Your task to perform on an android device: Search for flights from Sydney to Helsinki Image 0: 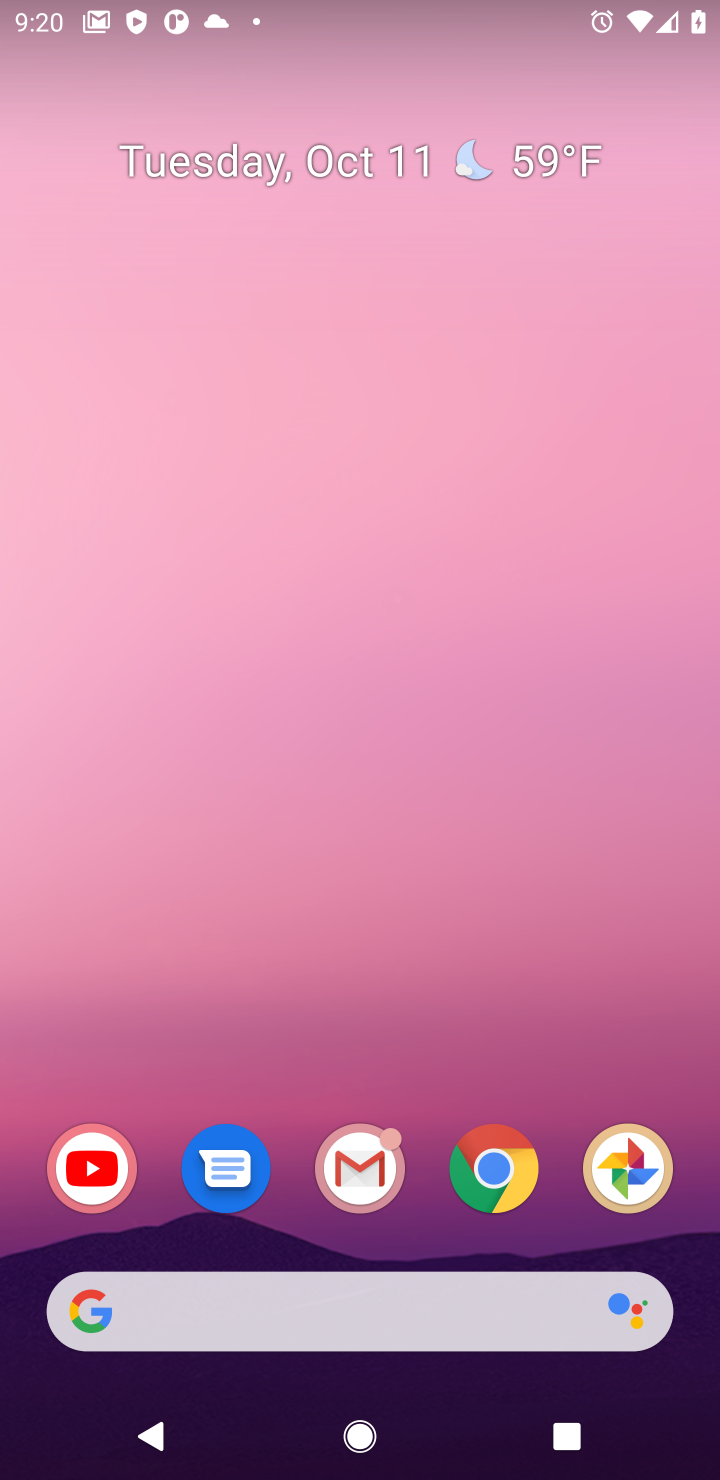
Step 0: press home button
Your task to perform on an android device: Search for flights from Sydney to Helsinki Image 1: 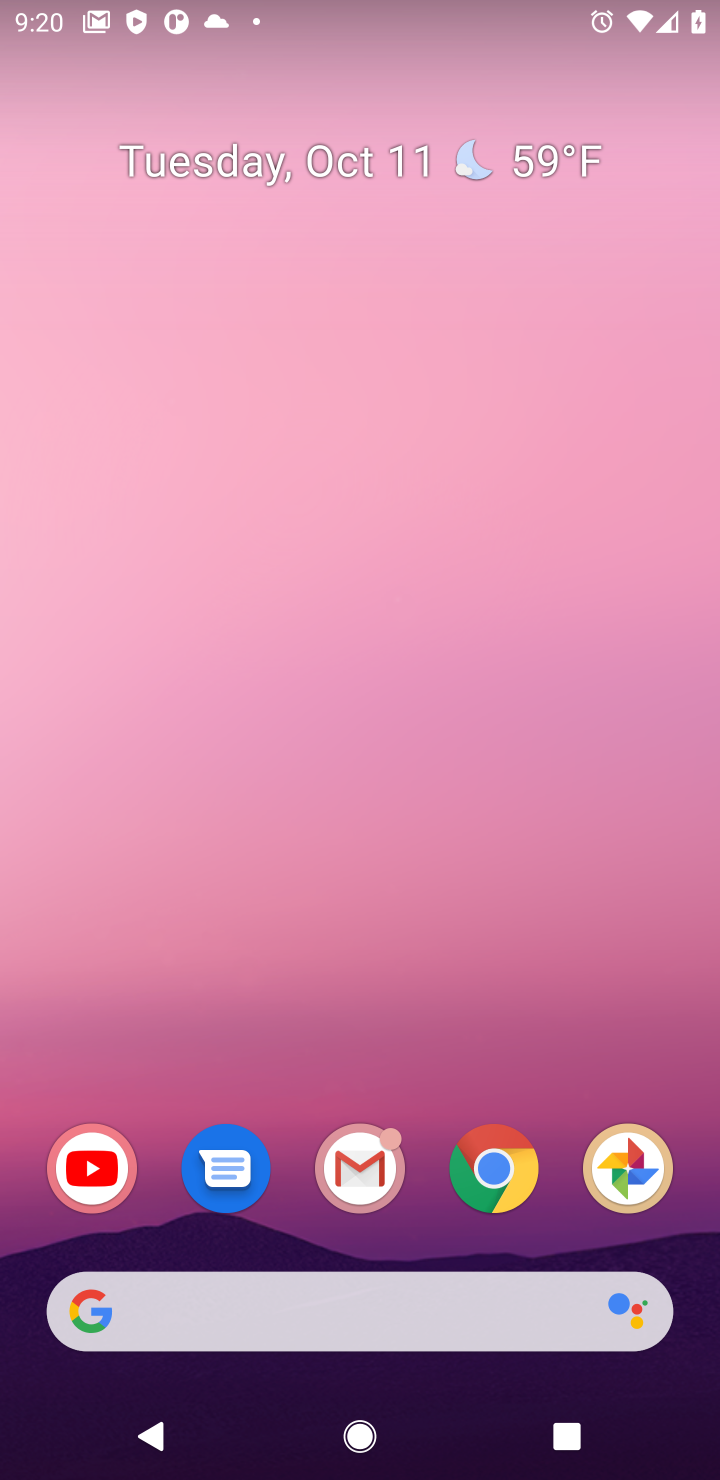
Step 1: click (492, 1172)
Your task to perform on an android device: Search for flights from Sydney to Helsinki Image 2: 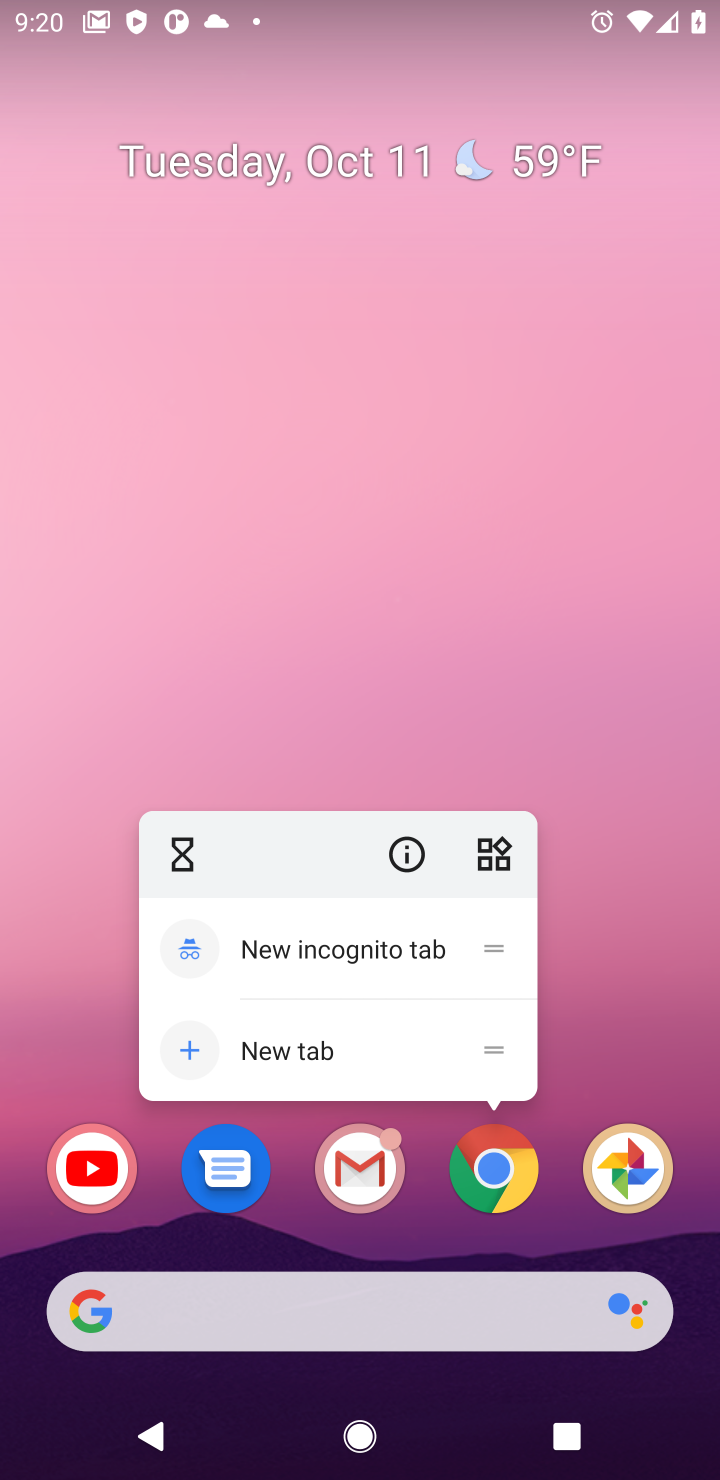
Step 2: click (510, 1182)
Your task to perform on an android device: Search for flights from Sydney to Helsinki Image 3: 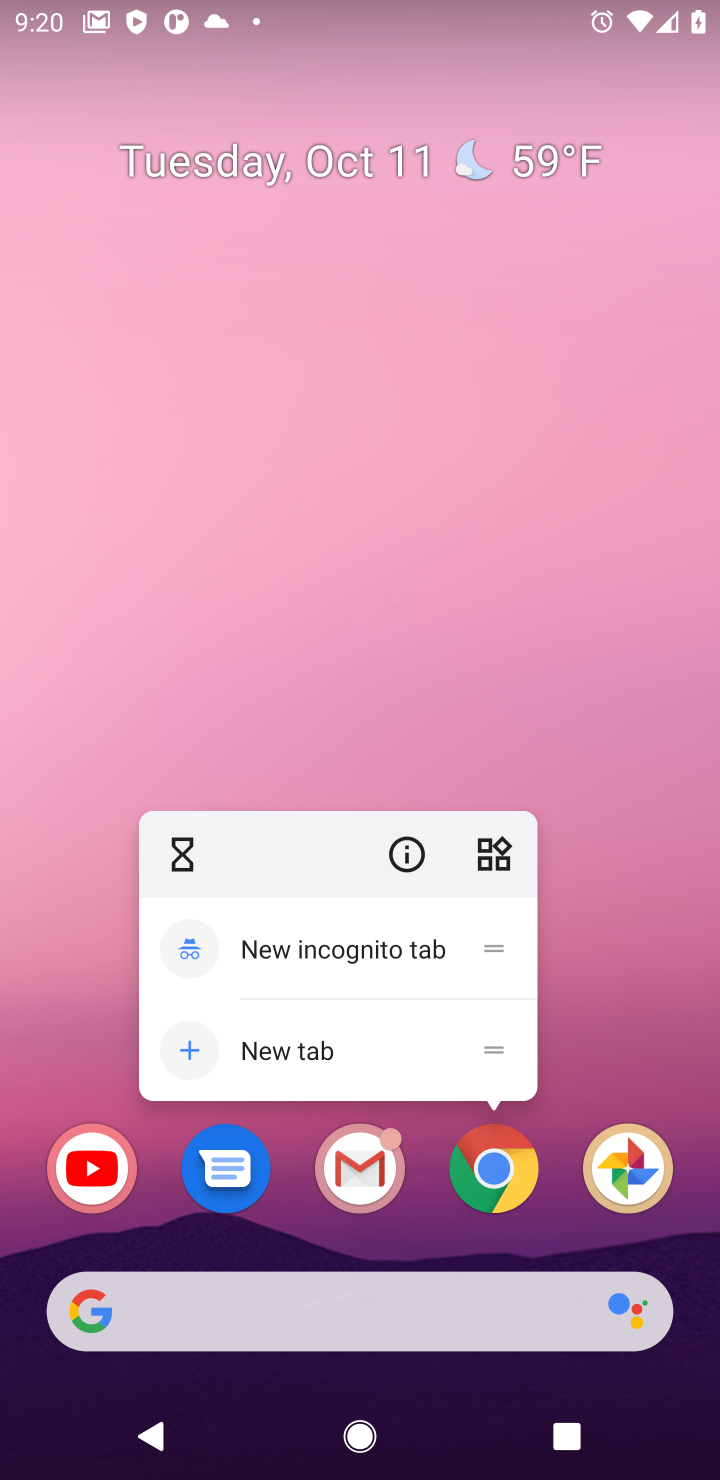
Step 3: press back button
Your task to perform on an android device: Search for flights from Sydney to Helsinki Image 4: 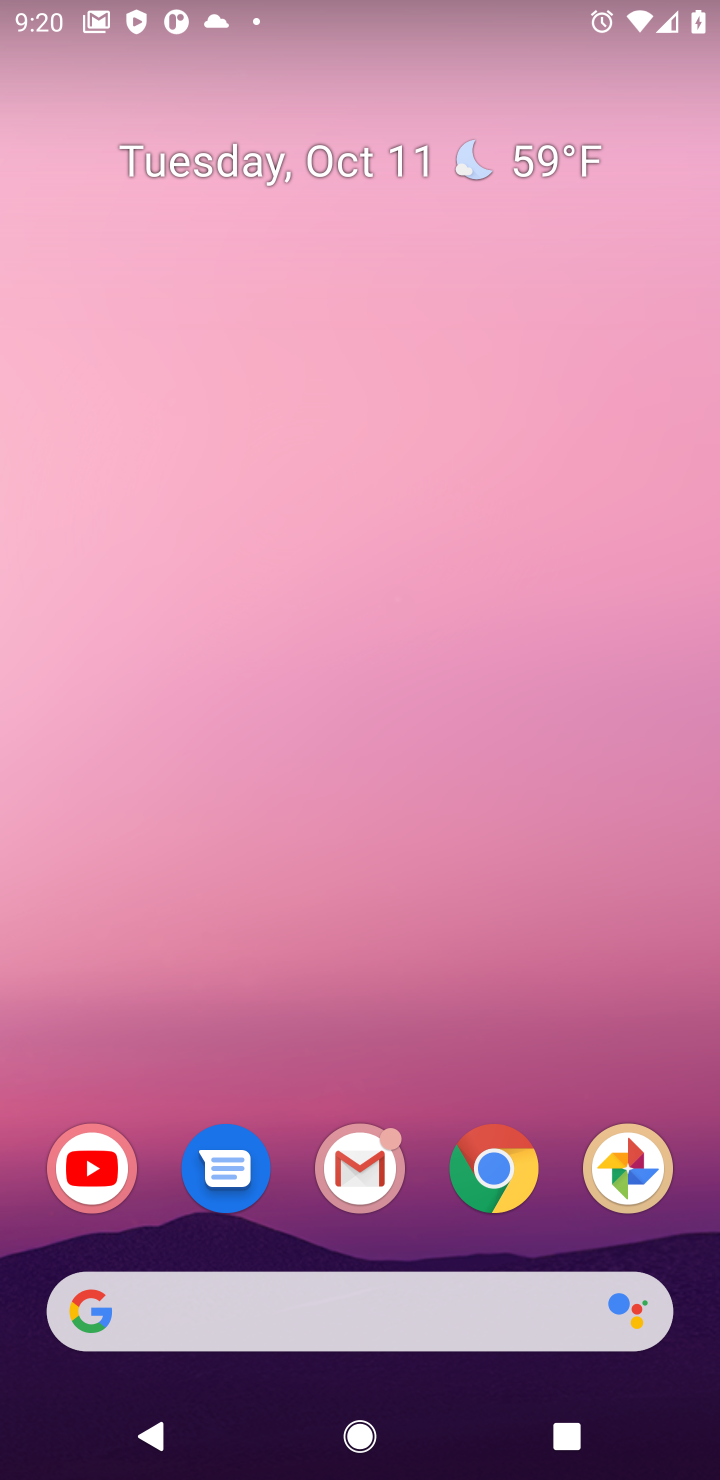
Step 4: press home button
Your task to perform on an android device: Search for flights from Sydney to Helsinki Image 5: 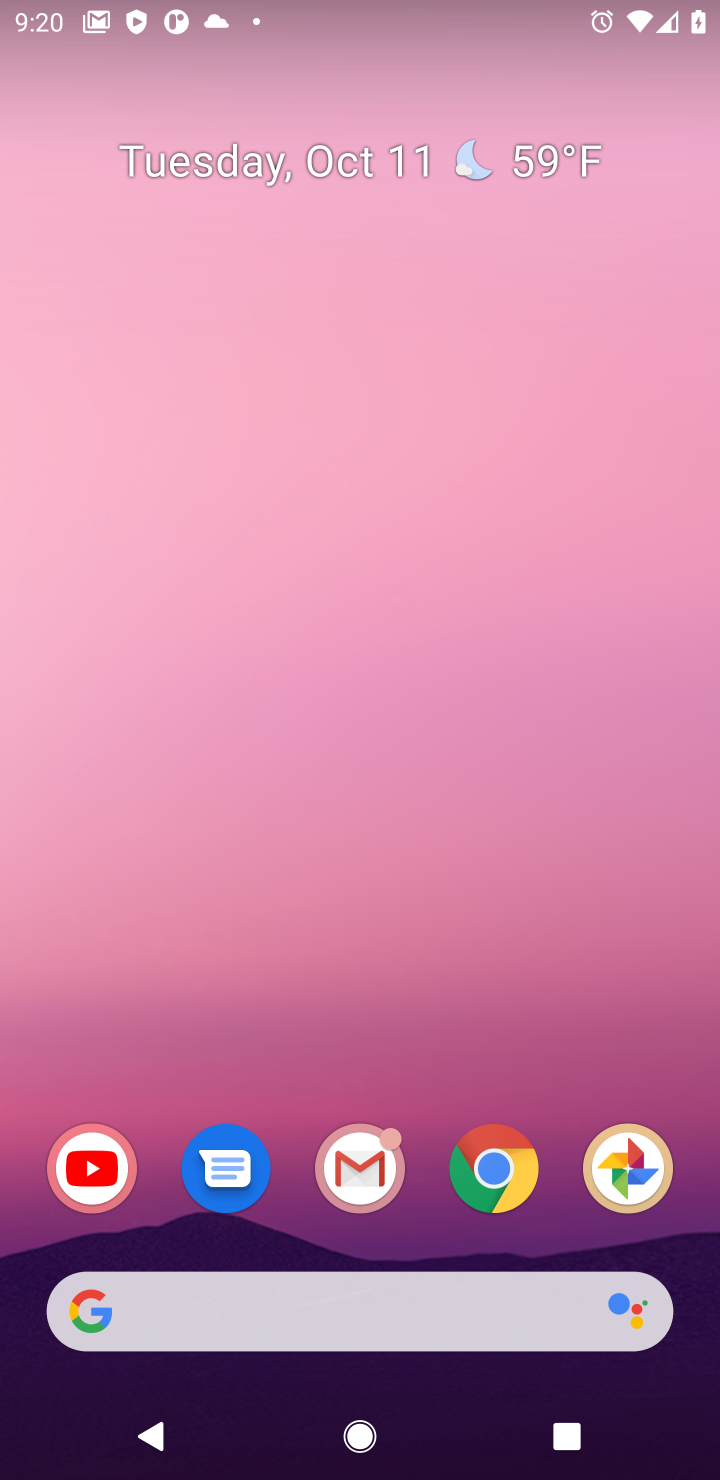
Step 5: click (500, 1190)
Your task to perform on an android device: Search for flights from Sydney to Helsinki Image 6: 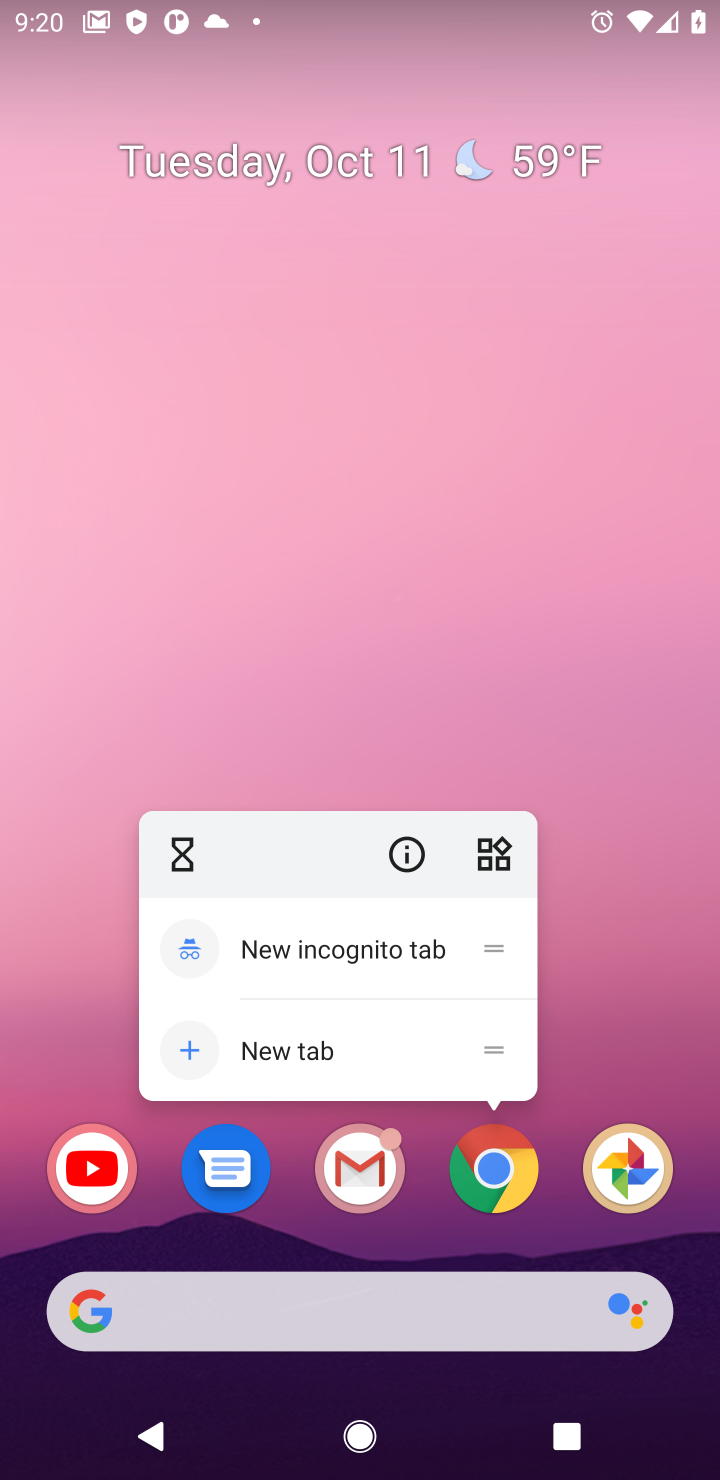
Step 6: click (500, 1184)
Your task to perform on an android device: Search for flights from Sydney to Helsinki Image 7: 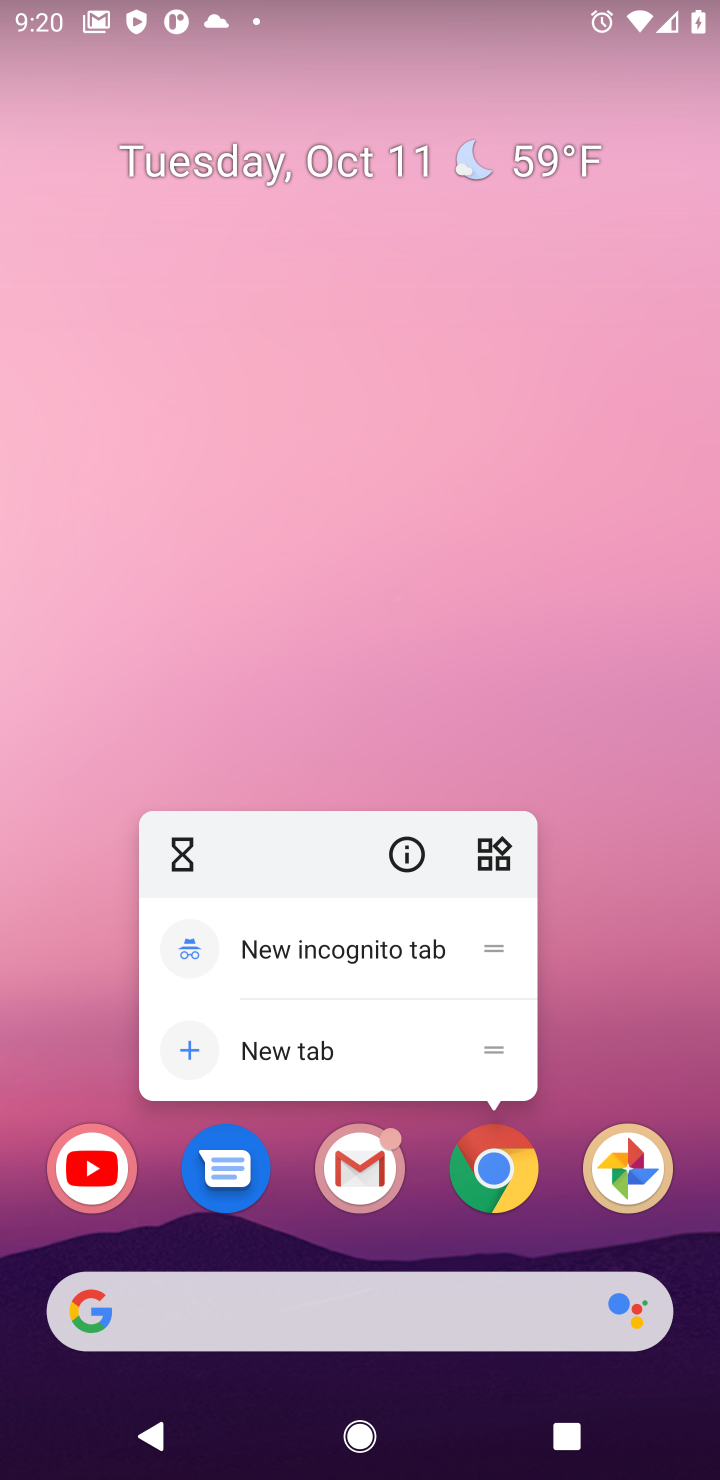
Step 7: click (490, 1197)
Your task to perform on an android device: Search for flights from Sydney to Helsinki Image 8: 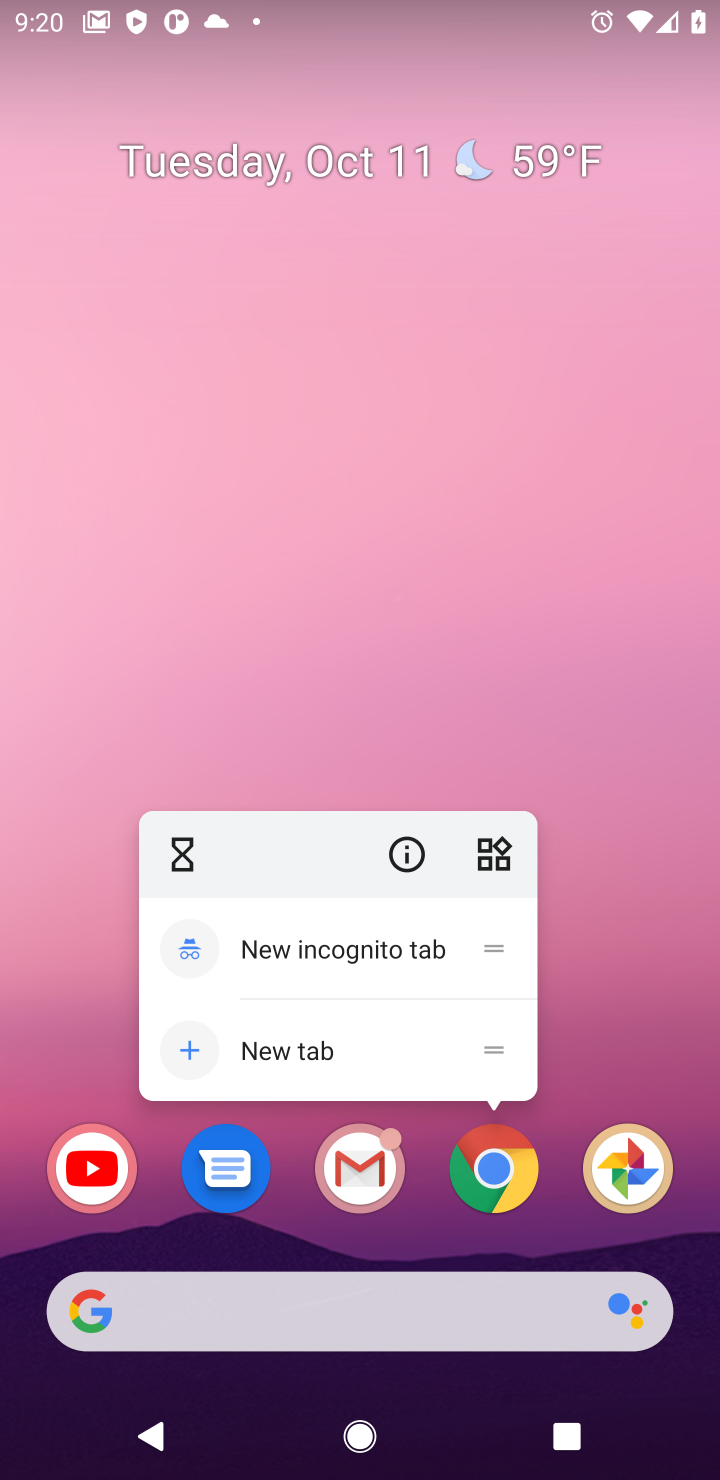
Step 8: click (483, 1188)
Your task to perform on an android device: Search for flights from Sydney to Helsinki Image 9: 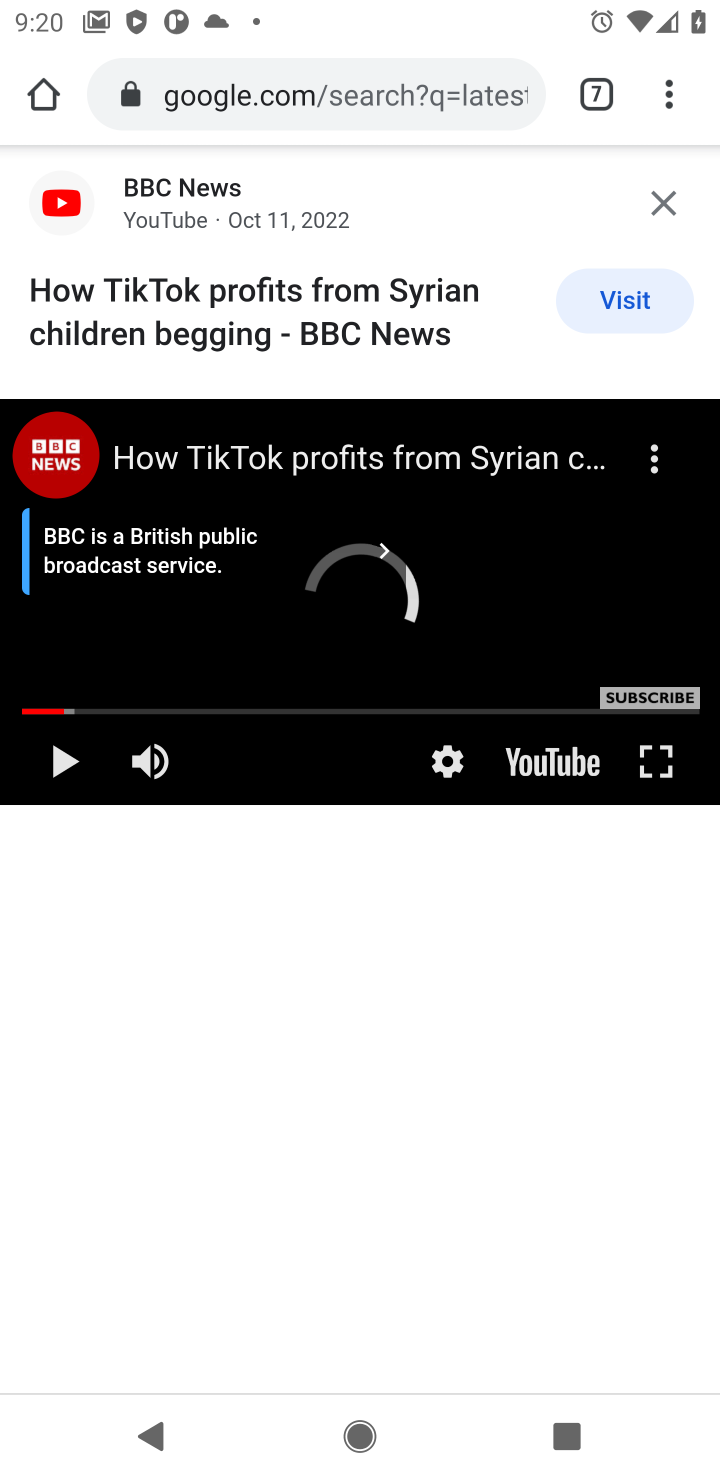
Step 9: click (276, 94)
Your task to perform on an android device: Search for flights from Sydney to Helsinki Image 10: 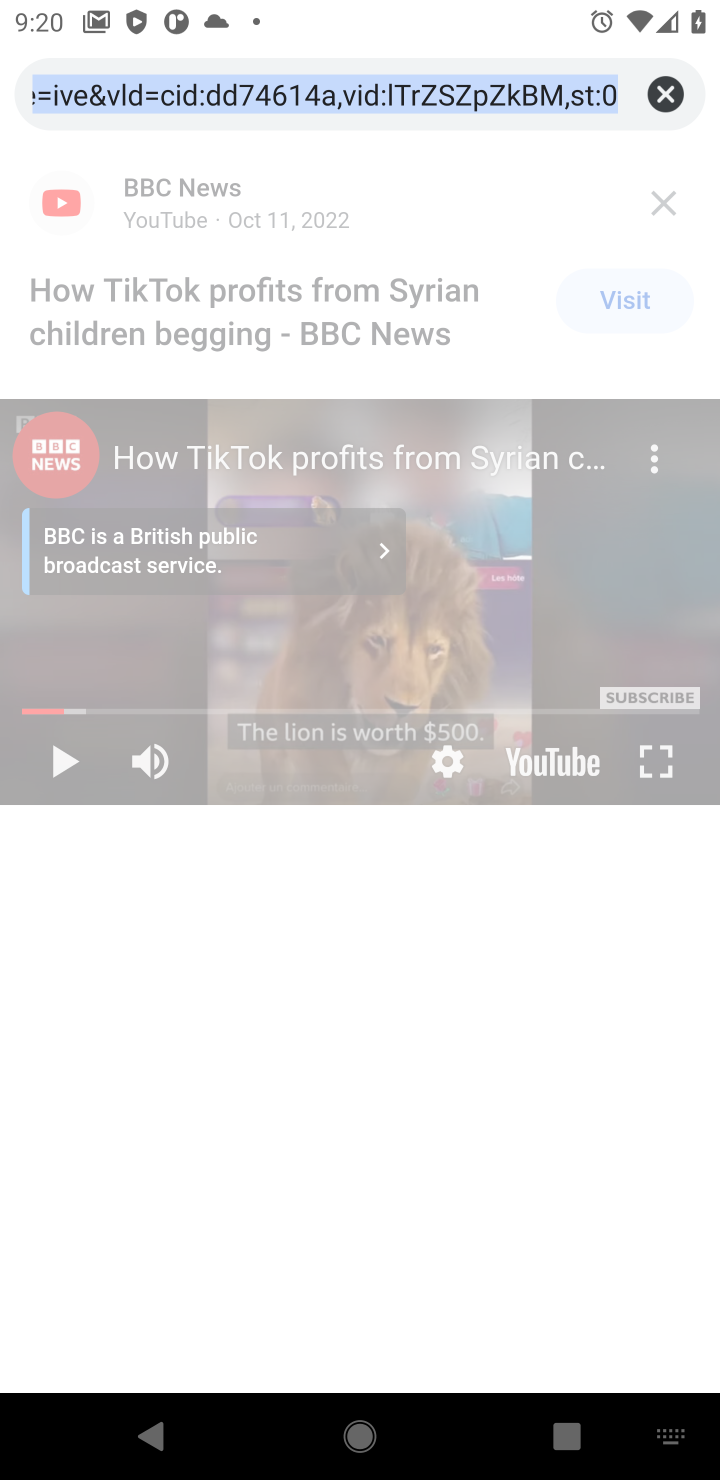
Step 10: click (667, 93)
Your task to perform on an android device: Search for flights from Sydney to Helsinki Image 11: 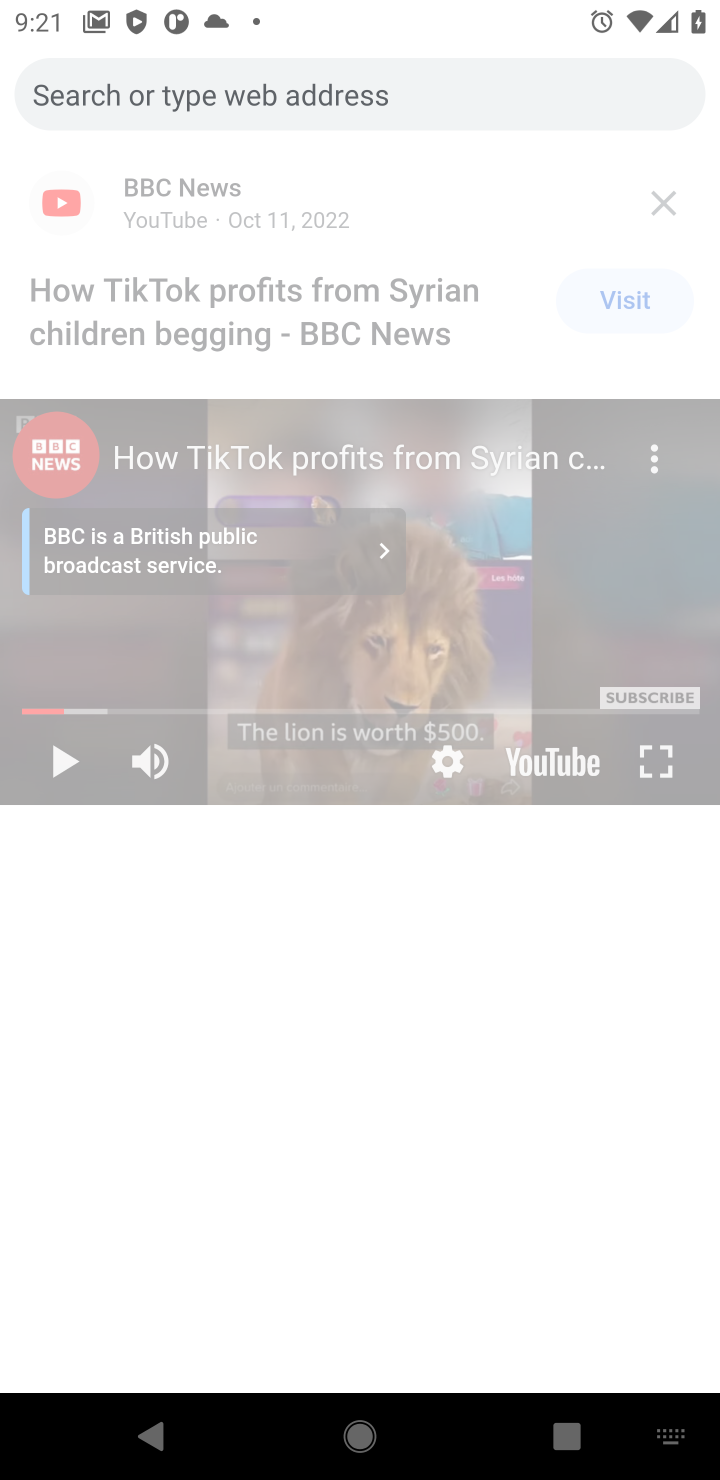
Step 11: type "flight from sydney to helsinki"
Your task to perform on an android device: Search for flights from Sydney to Helsinki Image 12: 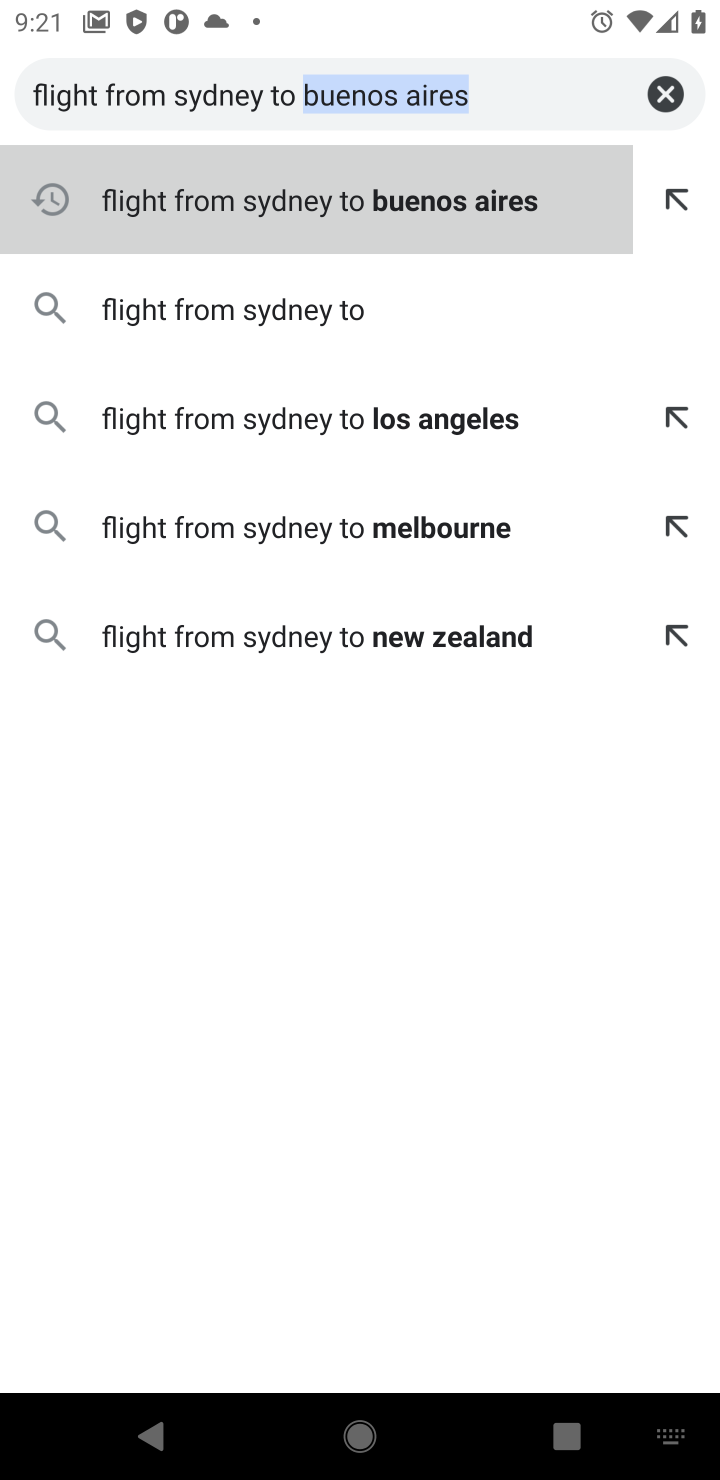
Step 12: click (307, 208)
Your task to perform on an android device: Search for flights from Sydney to Helsinki Image 13: 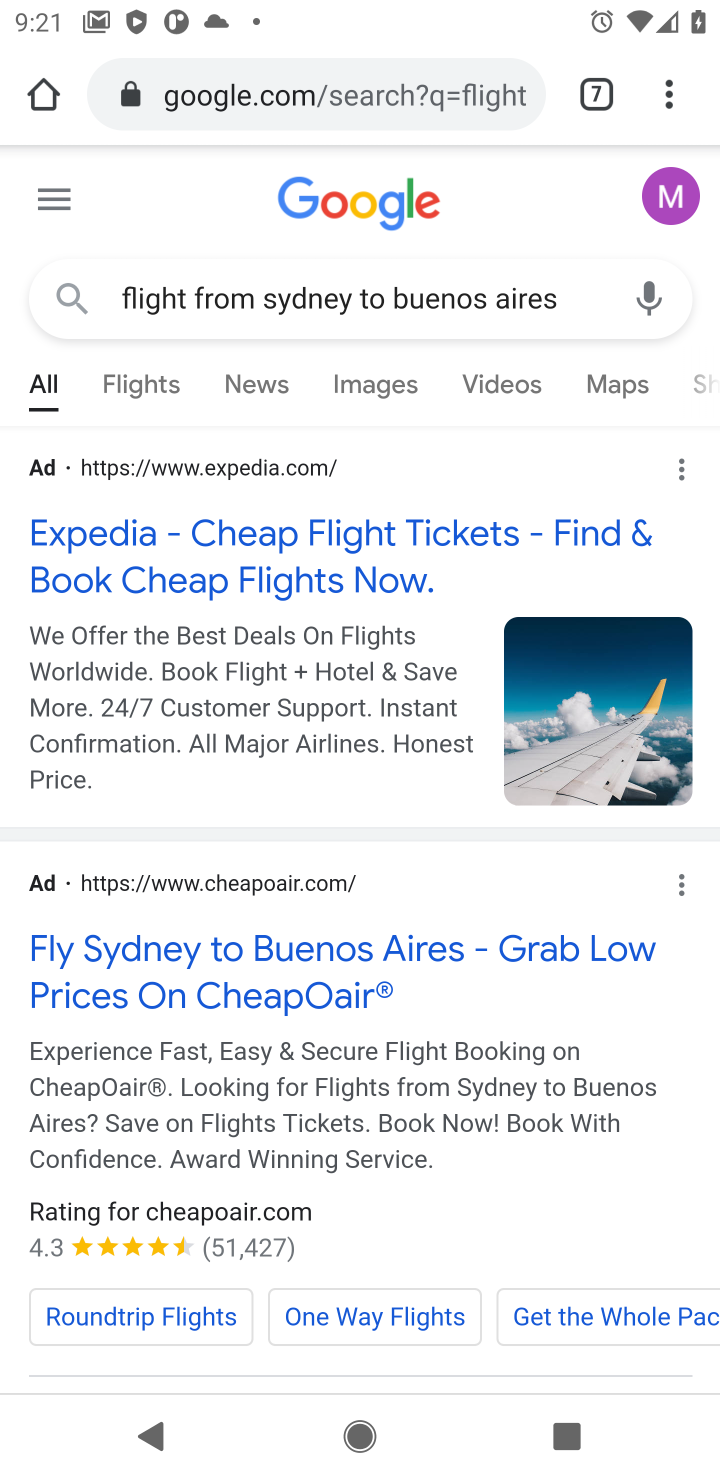
Step 13: click (145, 390)
Your task to perform on an android device: Search for flights from Sydney to Helsinki Image 14: 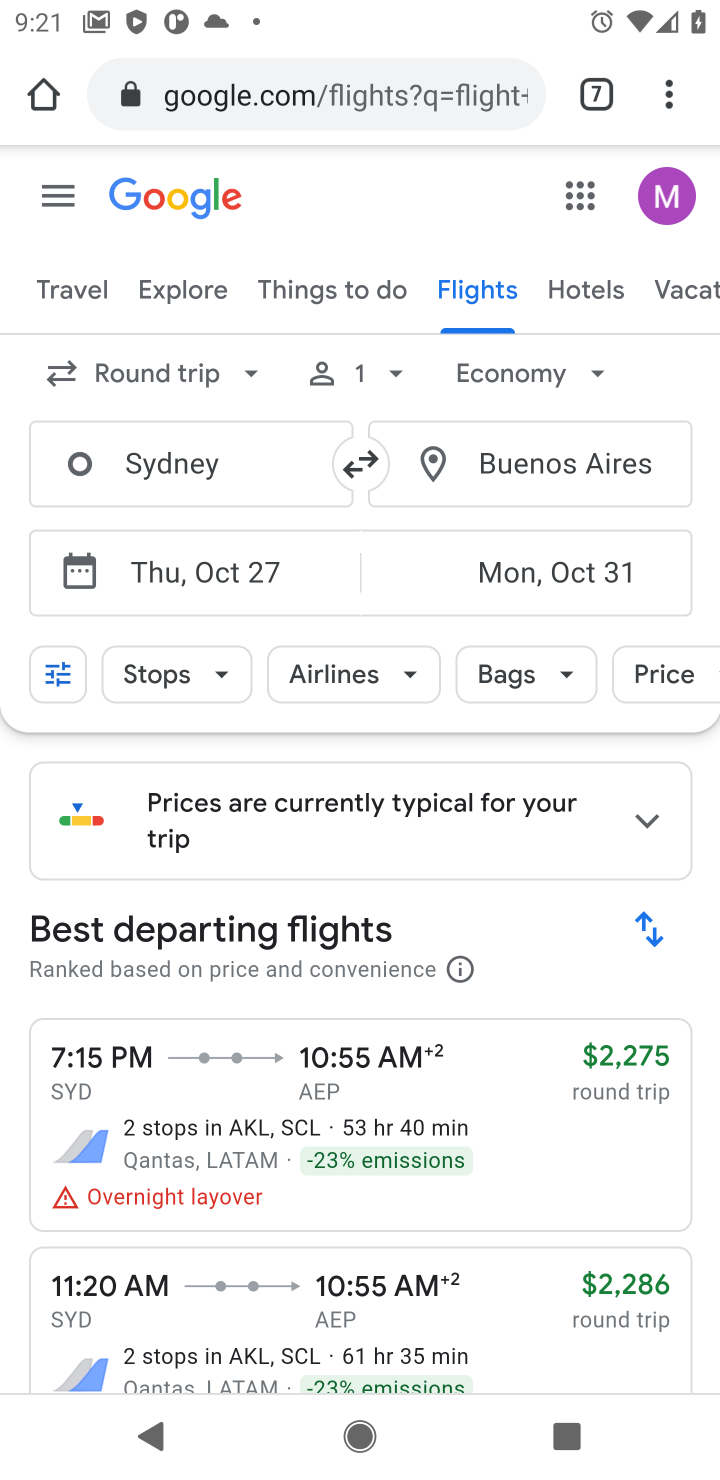
Step 14: click (572, 470)
Your task to perform on an android device: Search for flights from Sydney to Helsinki Image 15: 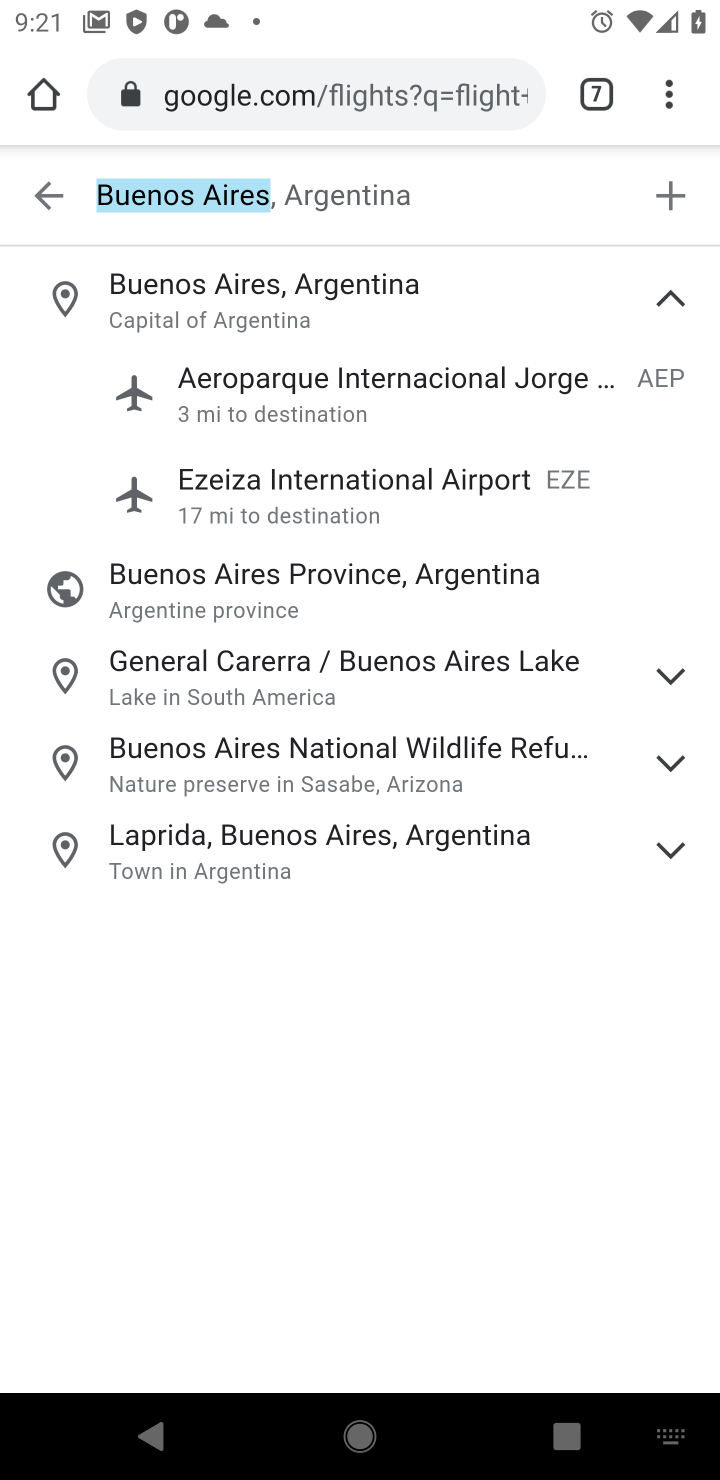
Step 15: type "helsinki"
Your task to perform on an android device: Search for flights from Sydney to Helsinki Image 16: 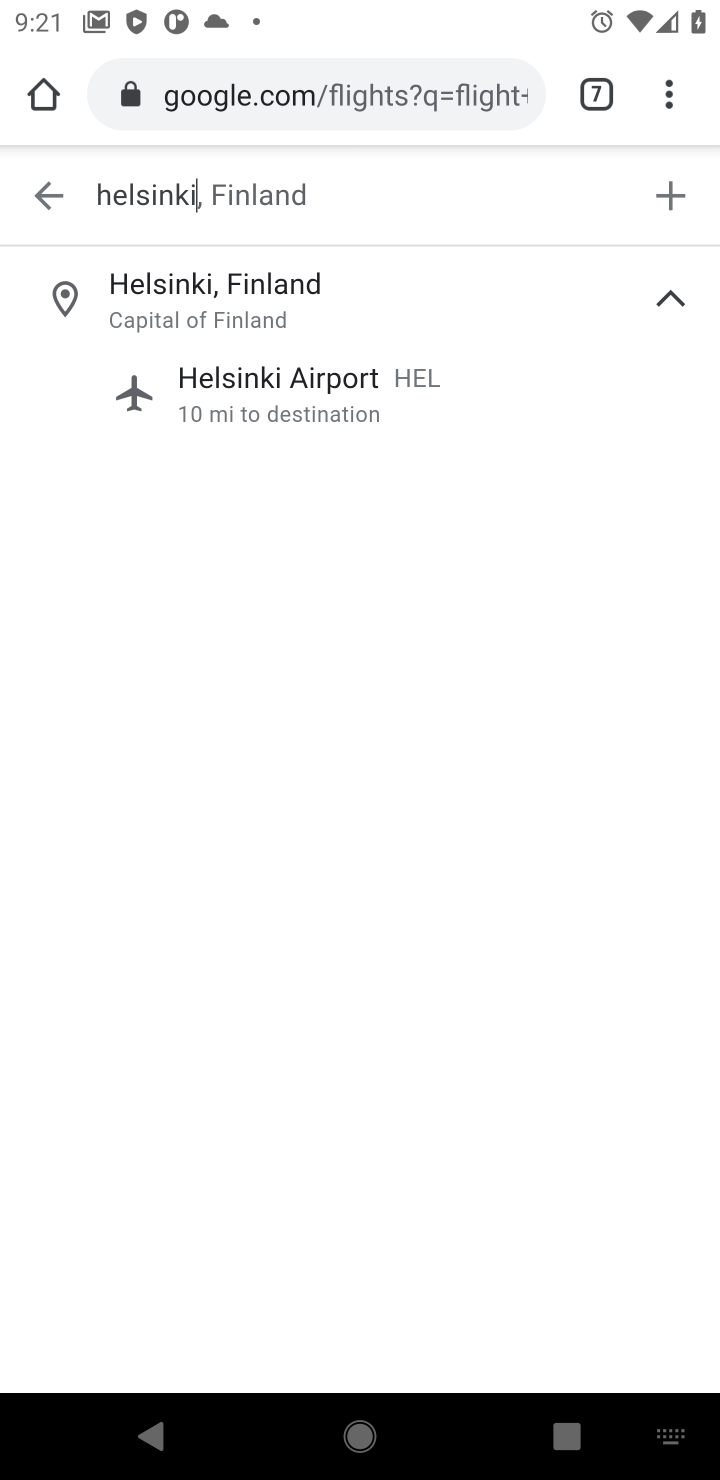
Step 16: type ""
Your task to perform on an android device: Search for flights from Sydney to Helsinki Image 17: 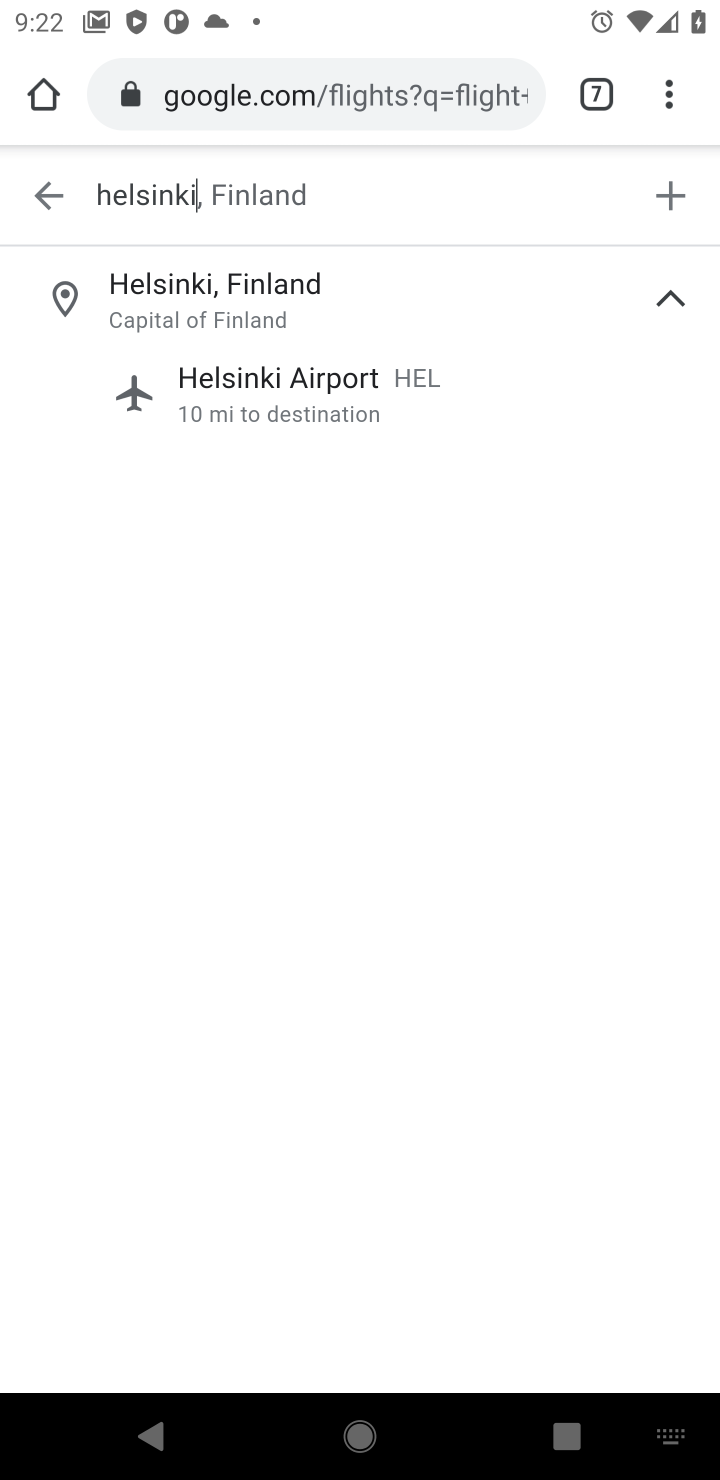
Step 17: click (219, 293)
Your task to perform on an android device: Search for flights from Sydney to Helsinki Image 18: 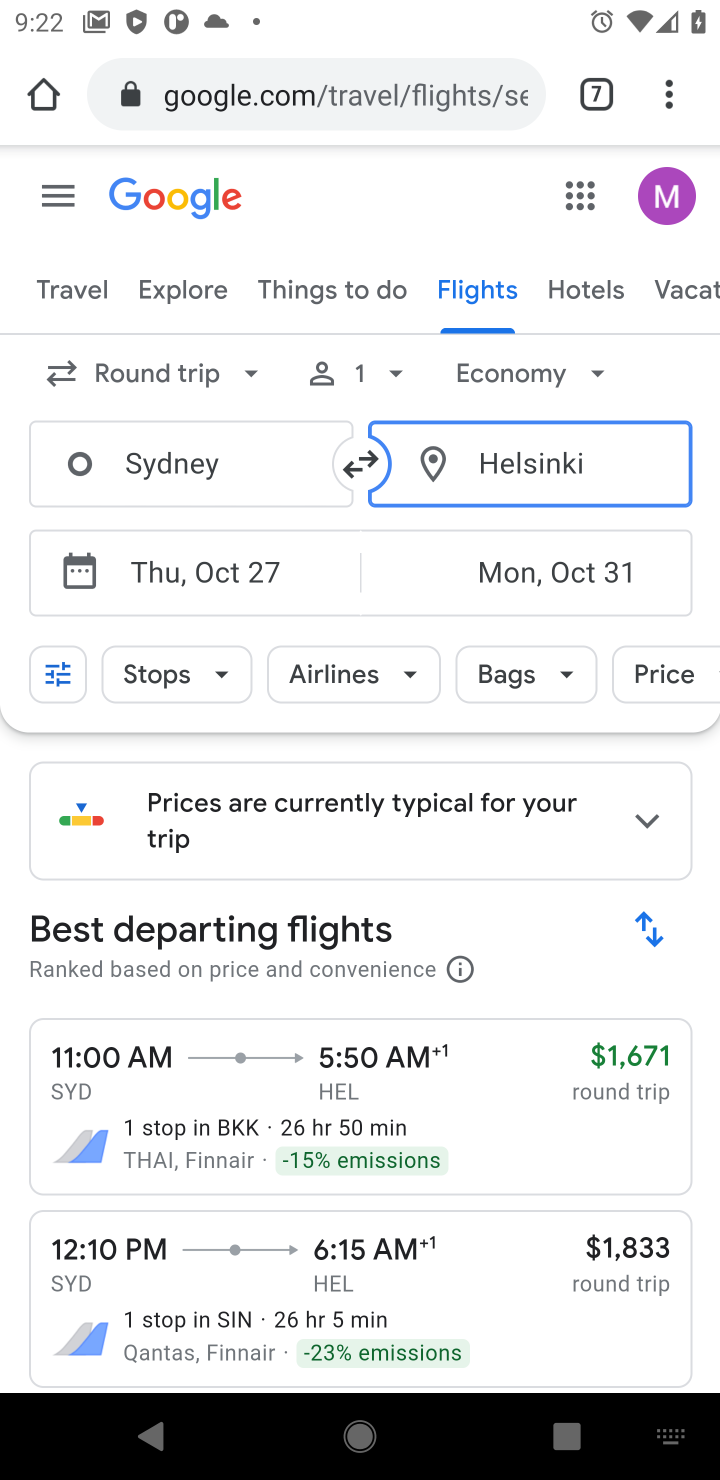
Step 18: task complete